Your task to perform on an android device: Open battery settings Image 0: 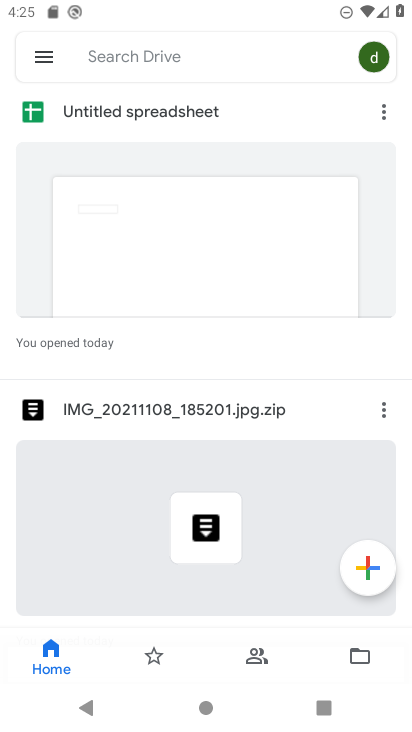
Step 0: press home button
Your task to perform on an android device: Open battery settings Image 1: 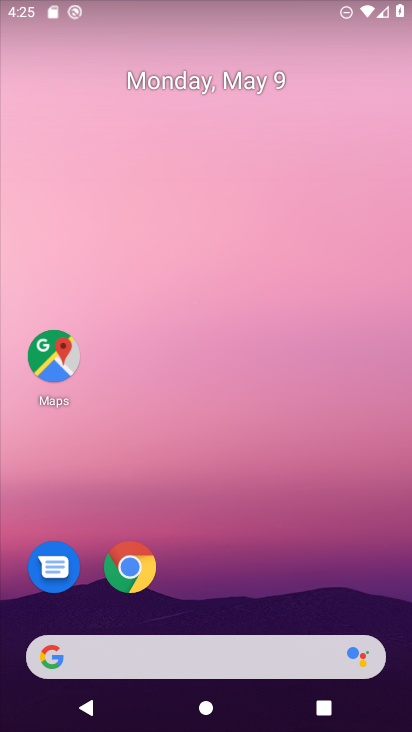
Step 1: drag from (264, 599) to (154, 31)
Your task to perform on an android device: Open battery settings Image 2: 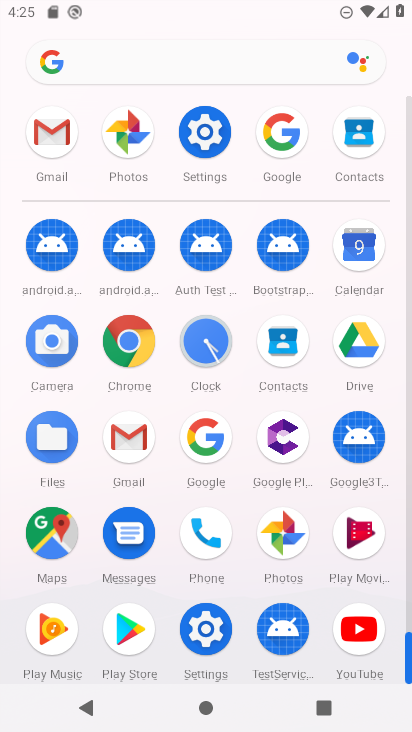
Step 2: click (175, 117)
Your task to perform on an android device: Open battery settings Image 3: 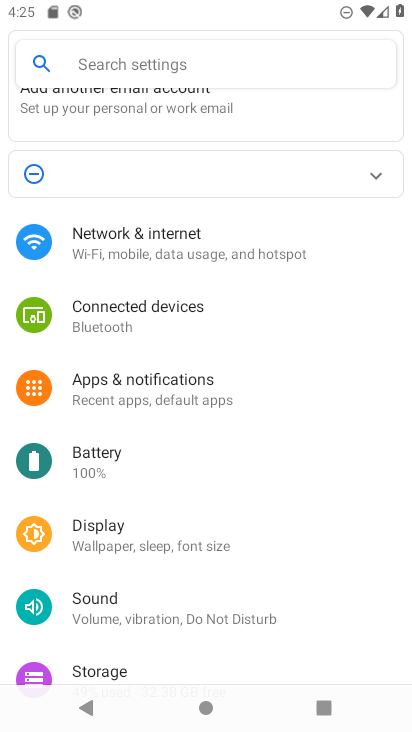
Step 3: click (131, 471)
Your task to perform on an android device: Open battery settings Image 4: 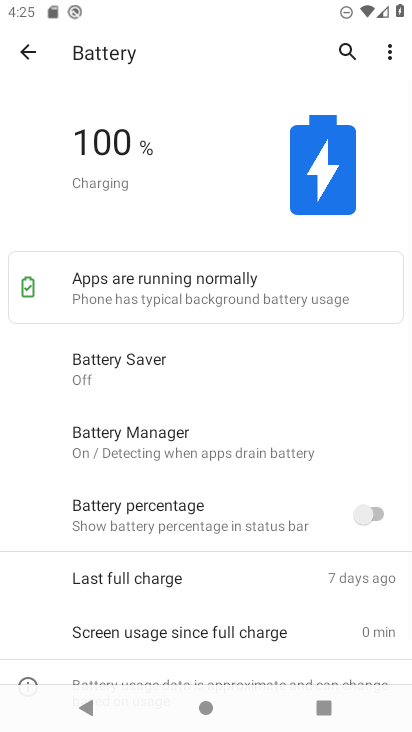
Step 4: task complete